Your task to perform on an android device: open a new tab in the chrome app Image 0: 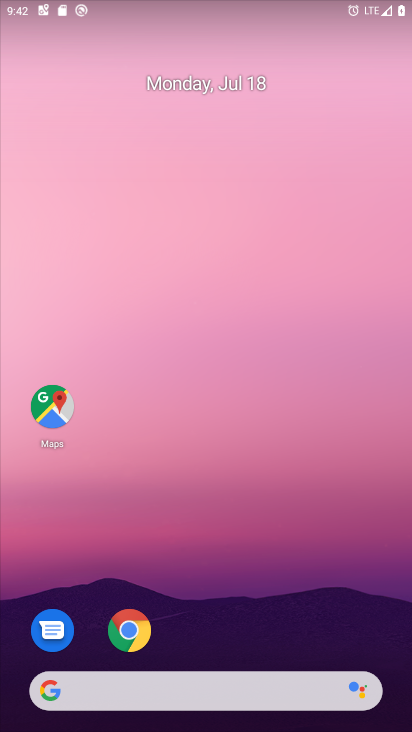
Step 0: click (127, 641)
Your task to perform on an android device: open a new tab in the chrome app Image 1: 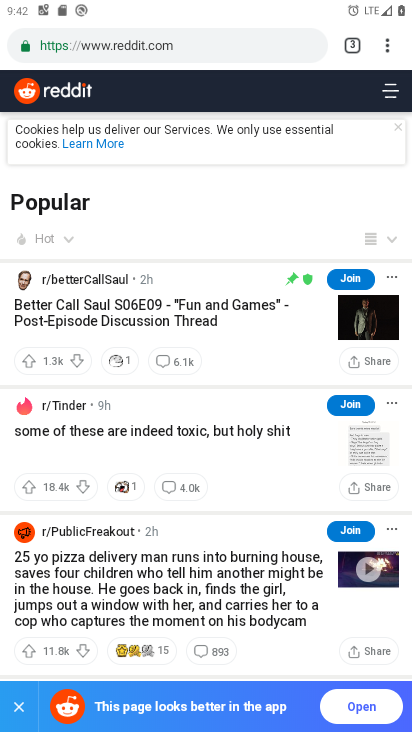
Step 1: click (348, 40)
Your task to perform on an android device: open a new tab in the chrome app Image 2: 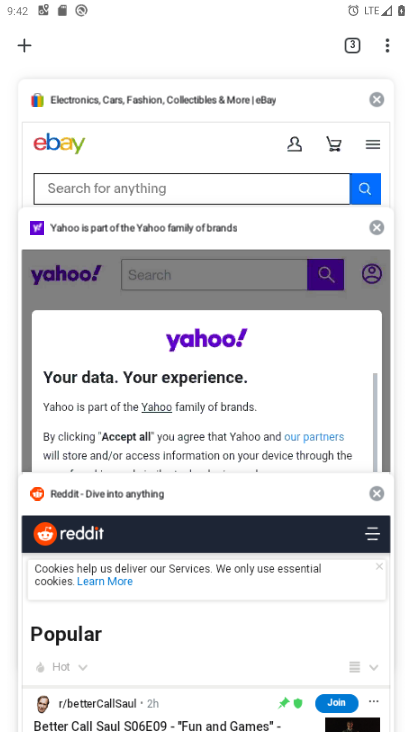
Step 2: click (28, 46)
Your task to perform on an android device: open a new tab in the chrome app Image 3: 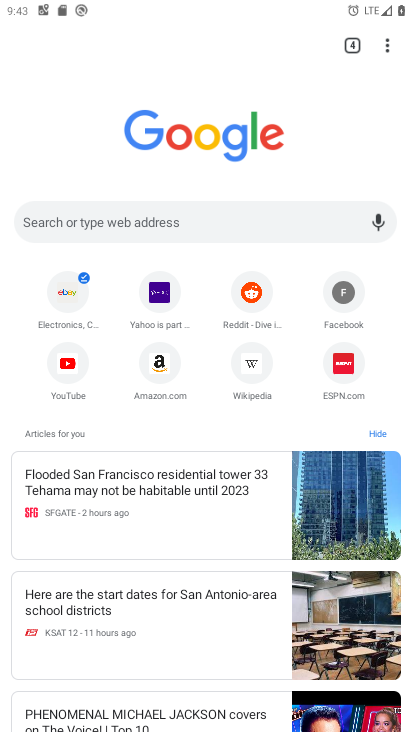
Step 3: task complete